Your task to perform on an android device: Go to sound settings Image 0: 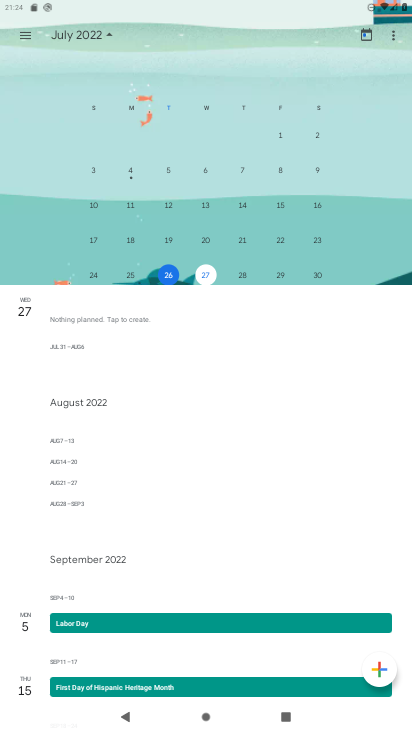
Step 0: press home button
Your task to perform on an android device: Go to sound settings Image 1: 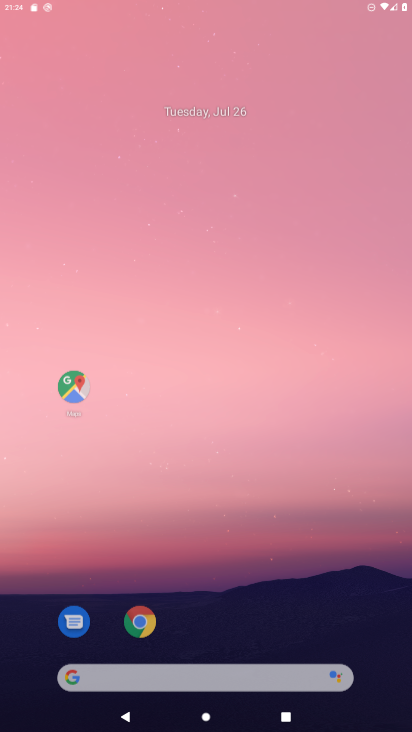
Step 1: drag from (299, 595) to (303, 199)
Your task to perform on an android device: Go to sound settings Image 2: 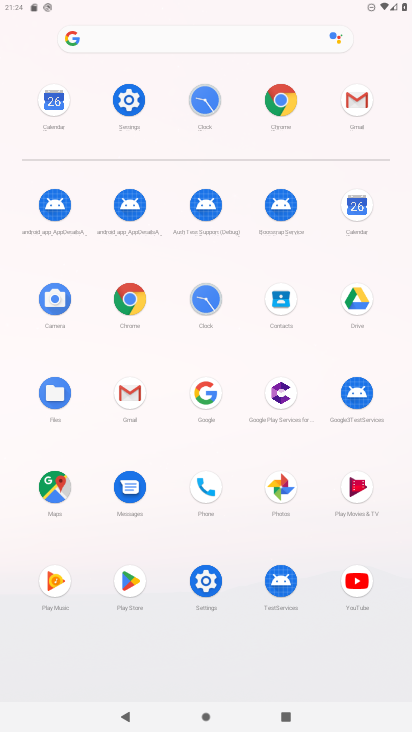
Step 2: click (200, 574)
Your task to perform on an android device: Go to sound settings Image 3: 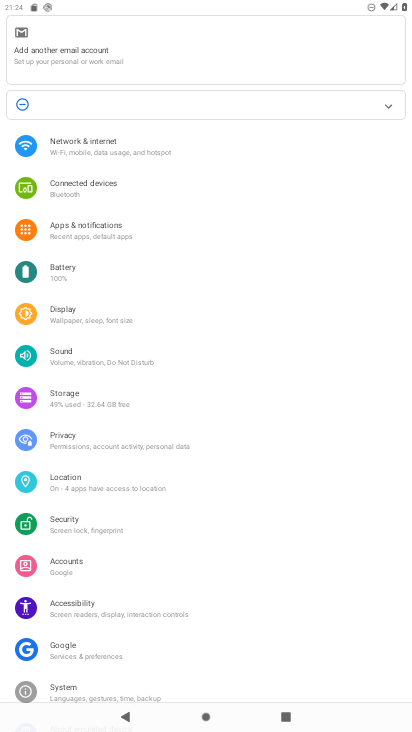
Step 3: click (67, 361)
Your task to perform on an android device: Go to sound settings Image 4: 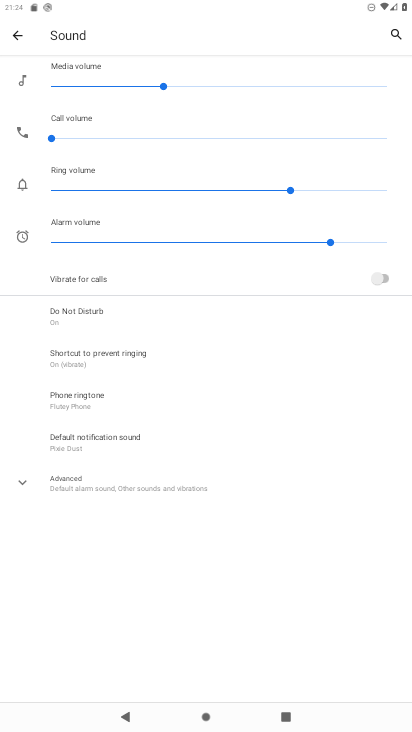
Step 4: task complete